Your task to perform on an android device: What's the weather going to be this weekend? Image 0: 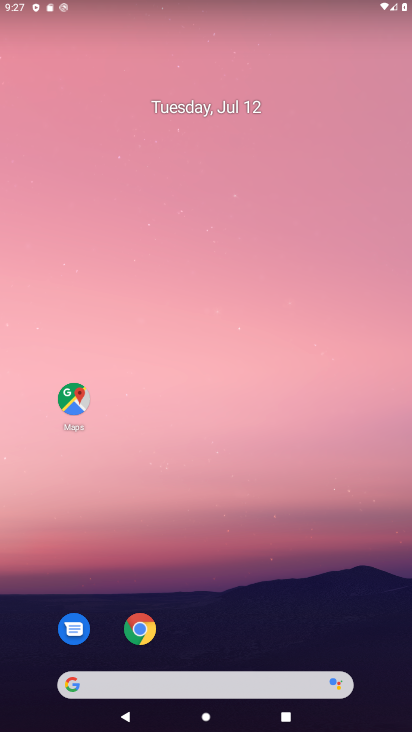
Step 0: drag from (236, 639) to (186, 104)
Your task to perform on an android device: What's the weather going to be this weekend? Image 1: 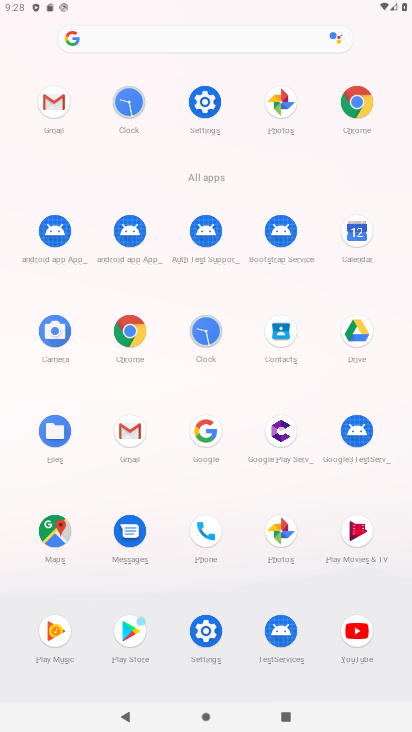
Step 1: click (132, 323)
Your task to perform on an android device: What's the weather going to be this weekend? Image 2: 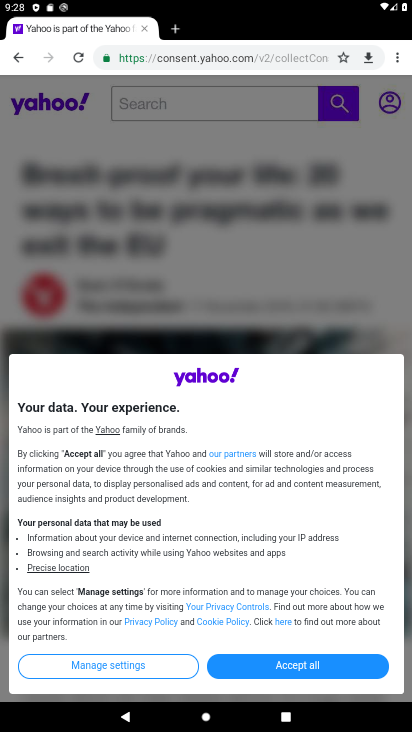
Step 2: click (191, 58)
Your task to perform on an android device: What's the weather going to be this weekend? Image 3: 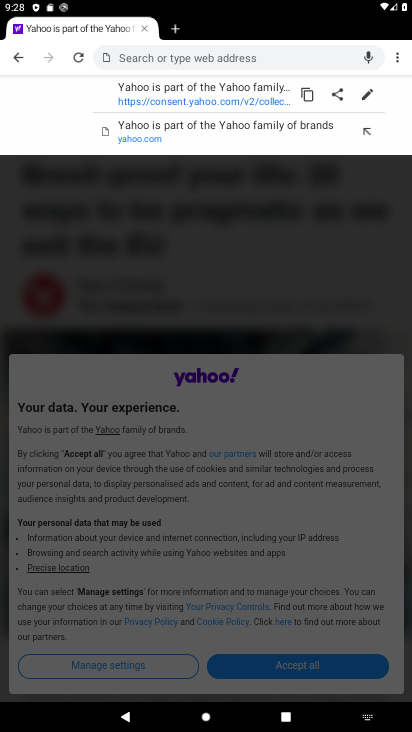
Step 3: type "weather"
Your task to perform on an android device: What's the weather going to be this weekend? Image 4: 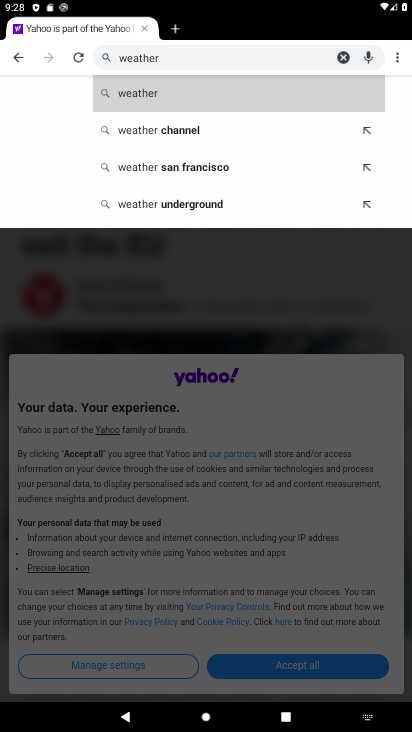
Step 4: click (166, 94)
Your task to perform on an android device: What's the weather going to be this weekend? Image 5: 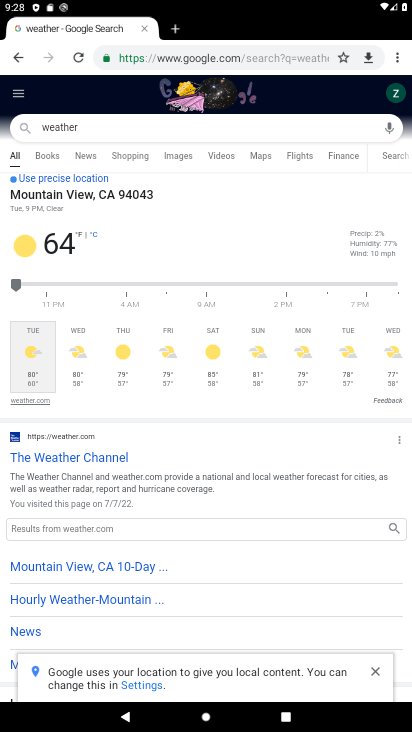
Step 5: click (174, 346)
Your task to perform on an android device: What's the weather going to be this weekend? Image 6: 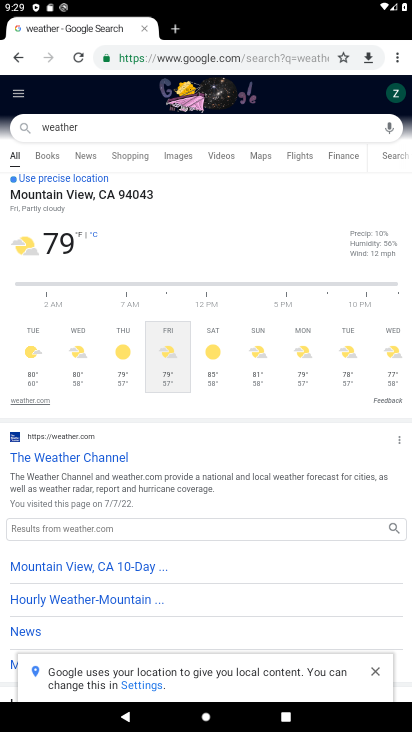
Step 6: task complete